Your task to perform on an android device: Open the map Image 0: 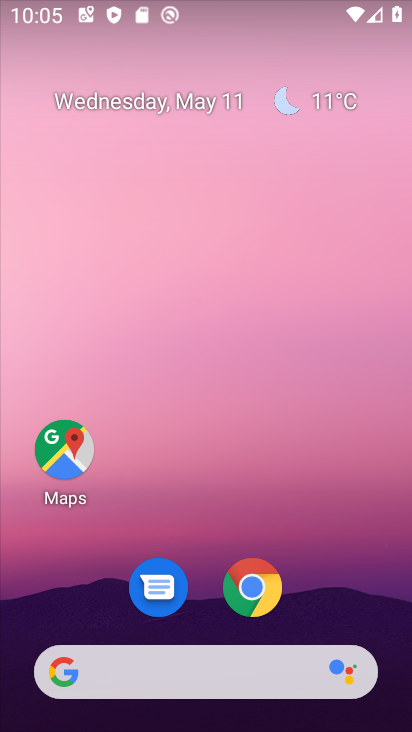
Step 0: drag from (241, 688) to (262, 269)
Your task to perform on an android device: Open the map Image 1: 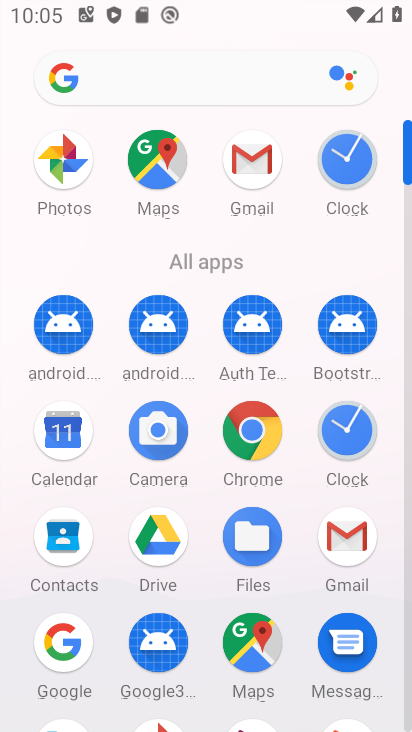
Step 1: click (150, 170)
Your task to perform on an android device: Open the map Image 2: 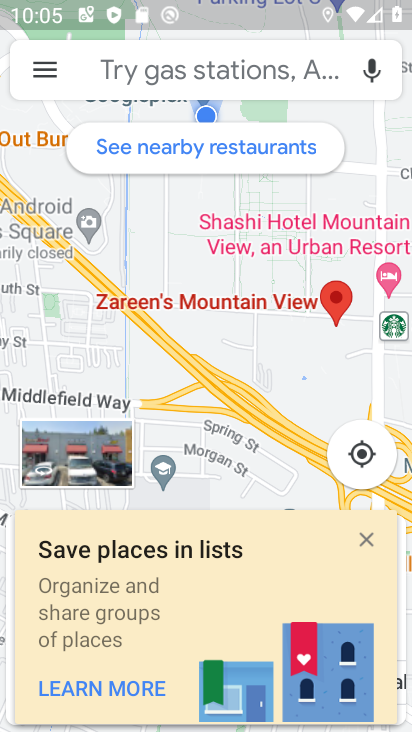
Step 2: click (358, 444)
Your task to perform on an android device: Open the map Image 3: 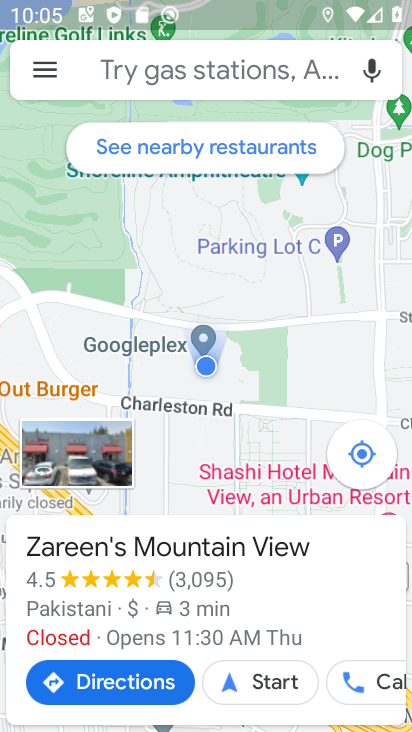
Step 3: task complete